Your task to perform on an android device: What's the weather today? Image 0: 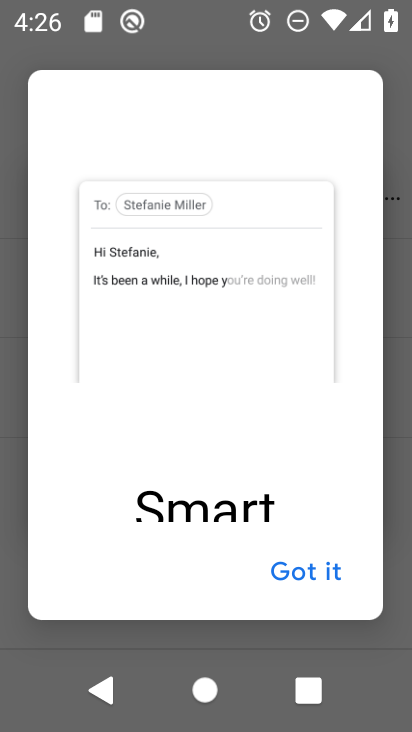
Step 0: click (320, 578)
Your task to perform on an android device: What's the weather today? Image 1: 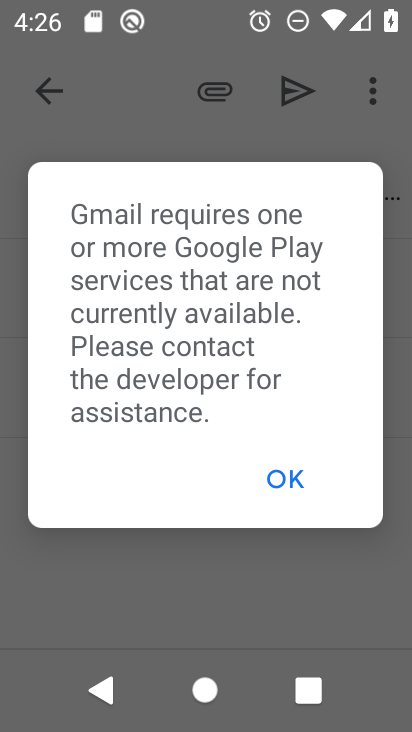
Step 1: press home button
Your task to perform on an android device: What's the weather today? Image 2: 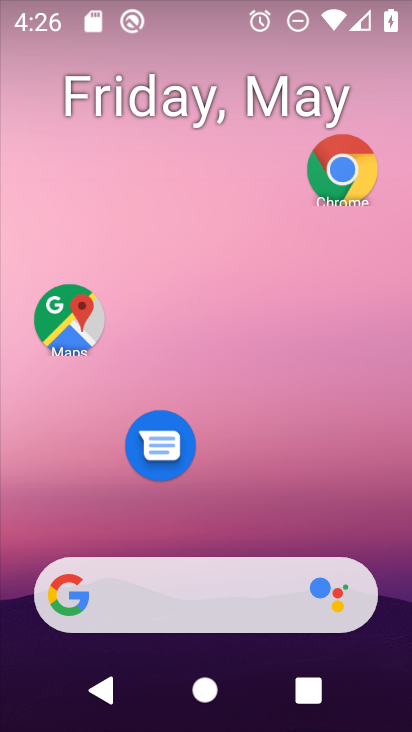
Step 2: click (182, 595)
Your task to perform on an android device: What's the weather today? Image 3: 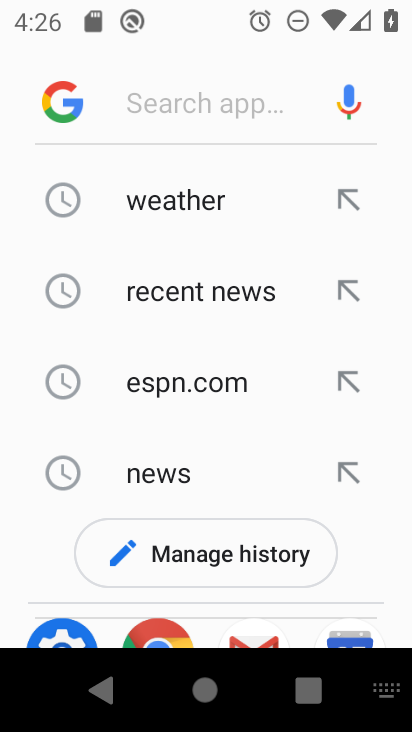
Step 3: click (169, 198)
Your task to perform on an android device: What's the weather today? Image 4: 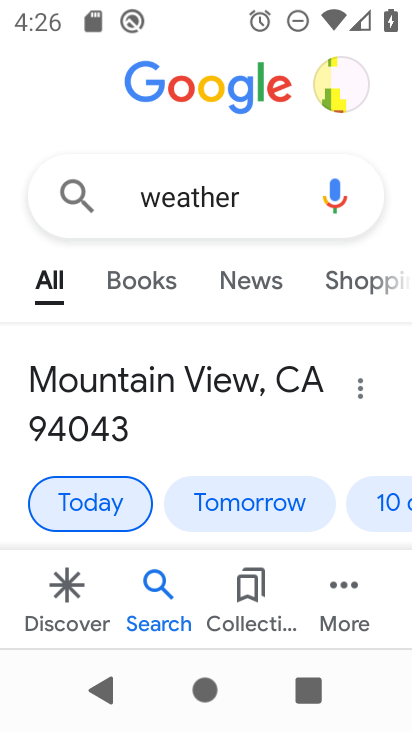
Step 4: task complete